Your task to perform on an android device: Open Chrome and go to settings Image 0: 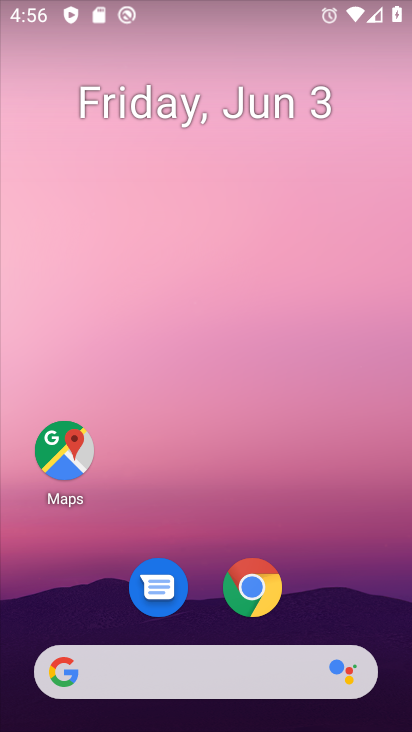
Step 0: click (266, 604)
Your task to perform on an android device: Open Chrome and go to settings Image 1: 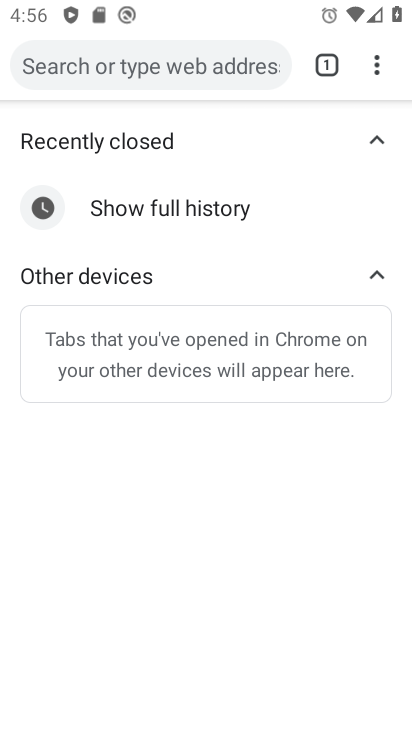
Step 1: click (380, 61)
Your task to perform on an android device: Open Chrome and go to settings Image 2: 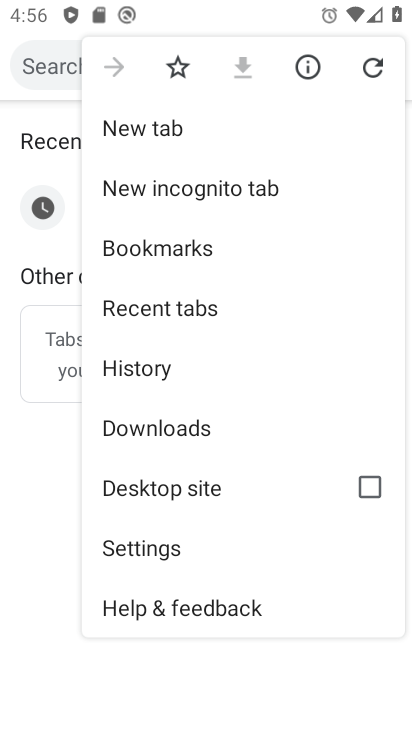
Step 2: click (141, 542)
Your task to perform on an android device: Open Chrome and go to settings Image 3: 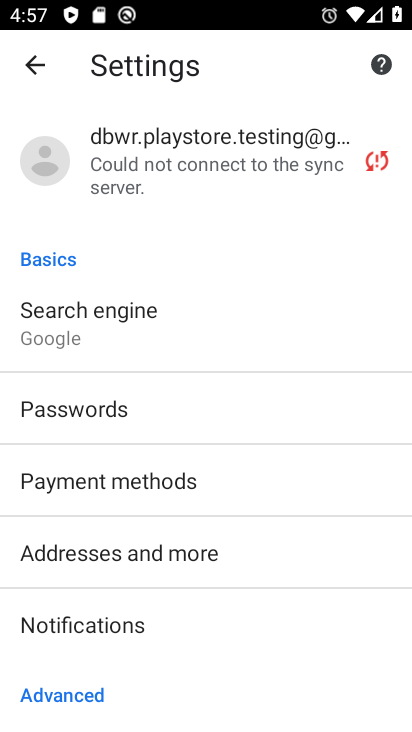
Step 3: task complete